Your task to perform on an android device: Open Google Maps and go to "Timeline" Image 0: 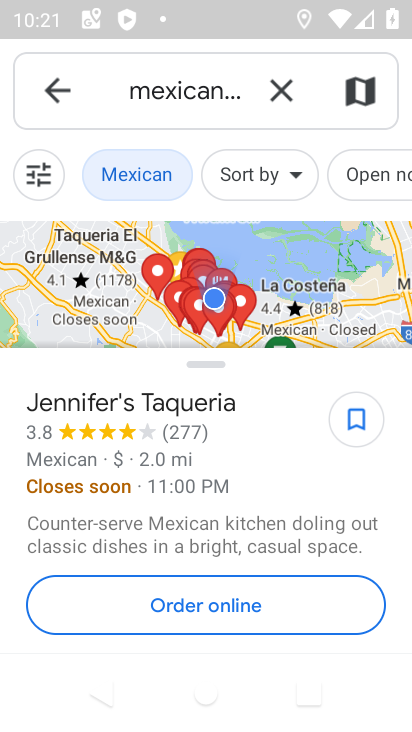
Step 0: drag from (210, 506) to (246, 263)
Your task to perform on an android device: Open Google Maps and go to "Timeline" Image 1: 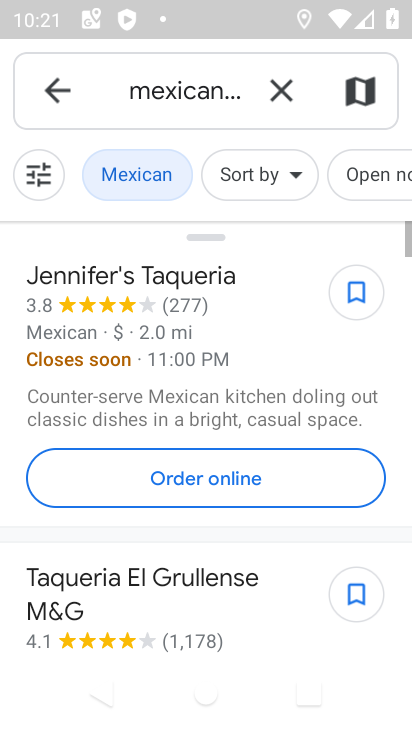
Step 1: click (54, 96)
Your task to perform on an android device: Open Google Maps and go to "Timeline" Image 2: 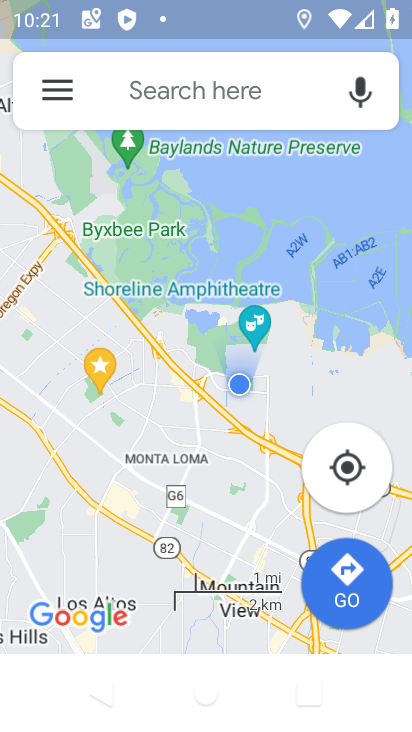
Step 2: click (54, 96)
Your task to perform on an android device: Open Google Maps and go to "Timeline" Image 3: 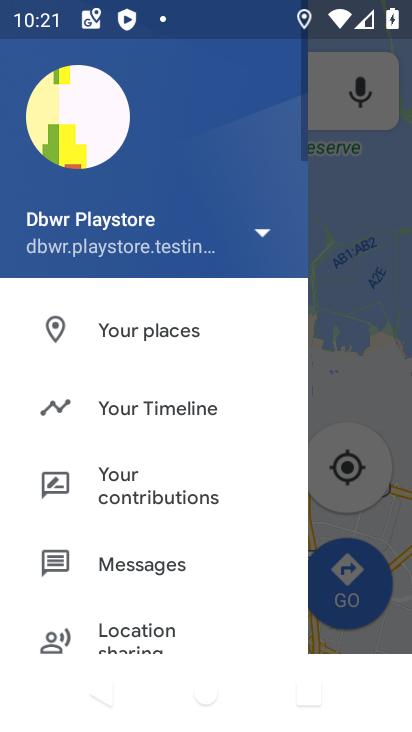
Step 3: click (163, 429)
Your task to perform on an android device: Open Google Maps and go to "Timeline" Image 4: 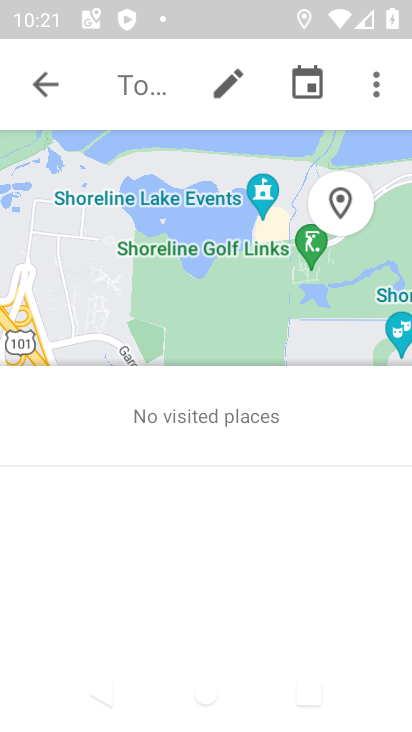
Step 4: task complete